Your task to perform on an android device: make emails show in primary in the gmail app Image 0: 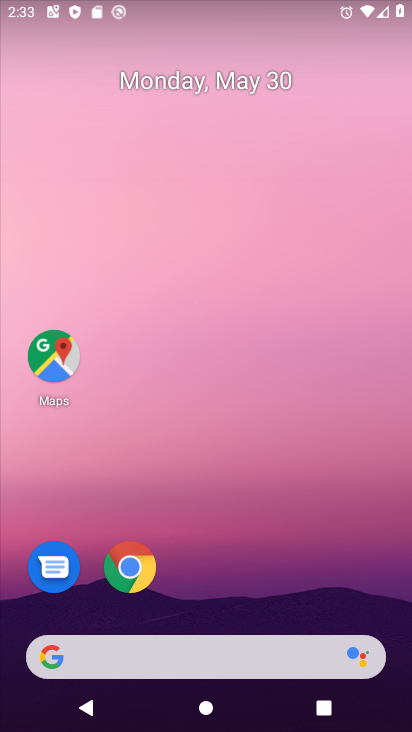
Step 0: drag from (226, 592) to (125, 6)
Your task to perform on an android device: make emails show in primary in the gmail app Image 1: 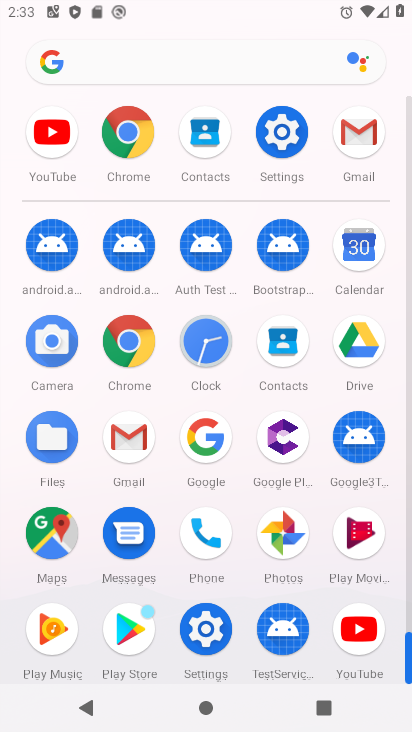
Step 1: click (131, 452)
Your task to perform on an android device: make emails show in primary in the gmail app Image 2: 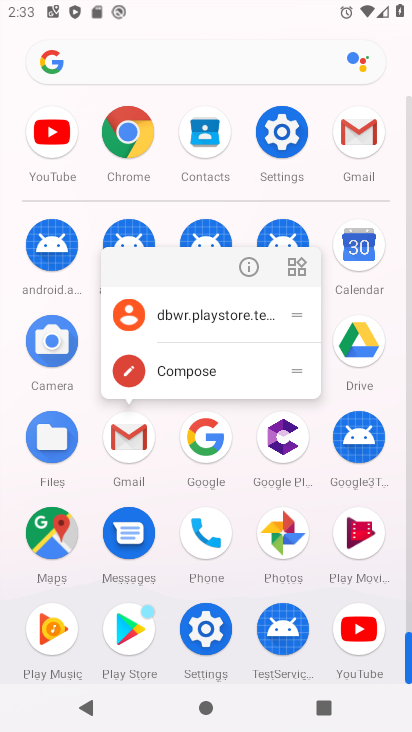
Step 2: click (127, 461)
Your task to perform on an android device: make emails show in primary in the gmail app Image 3: 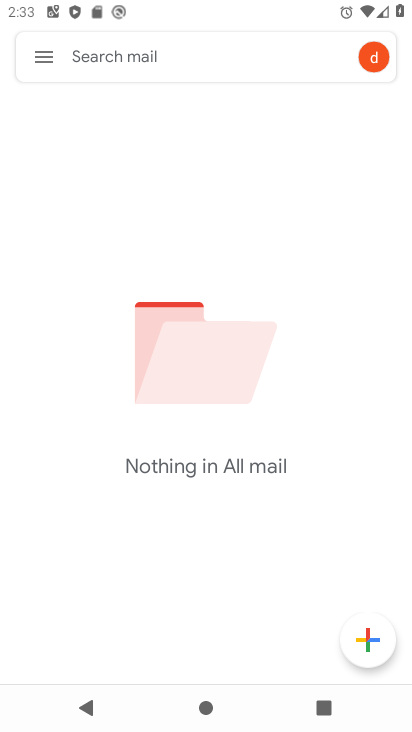
Step 3: click (35, 53)
Your task to perform on an android device: make emails show in primary in the gmail app Image 4: 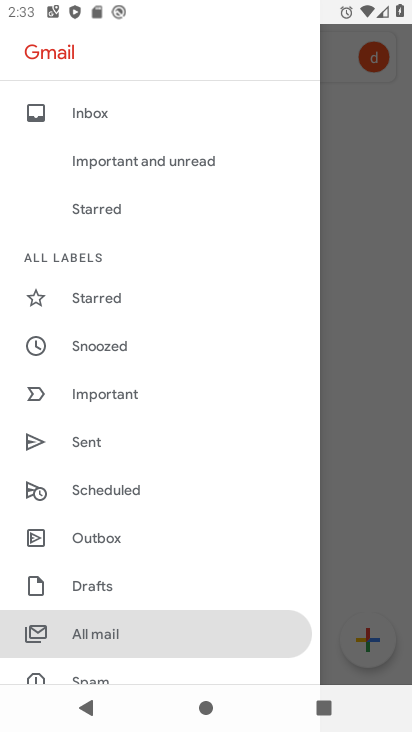
Step 4: drag from (146, 601) to (233, 99)
Your task to perform on an android device: make emails show in primary in the gmail app Image 5: 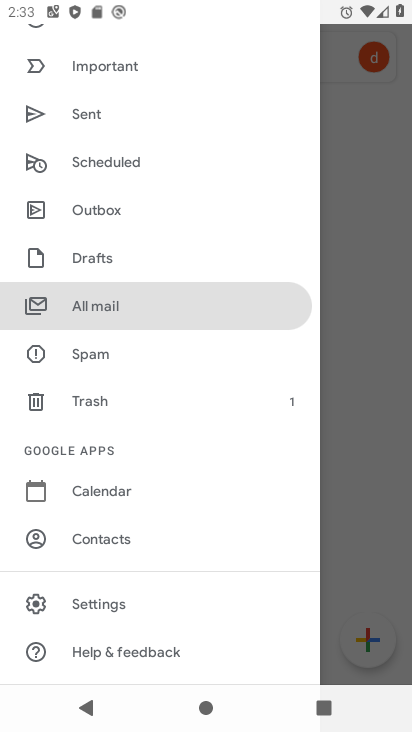
Step 5: click (102, 600)
Your task to perform on an android device: make emails show in primary in the gmail app Image 6: 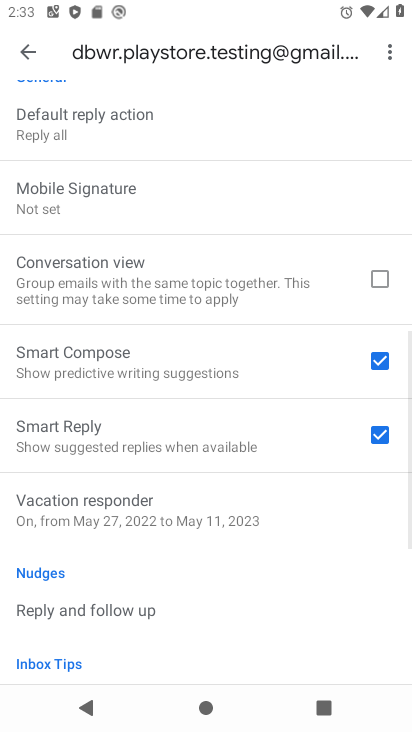
Step 6: drag from (66, 173) to (85, 427)
Your task to perform on an android device: make emails show in primary in the gmail app Image 7: 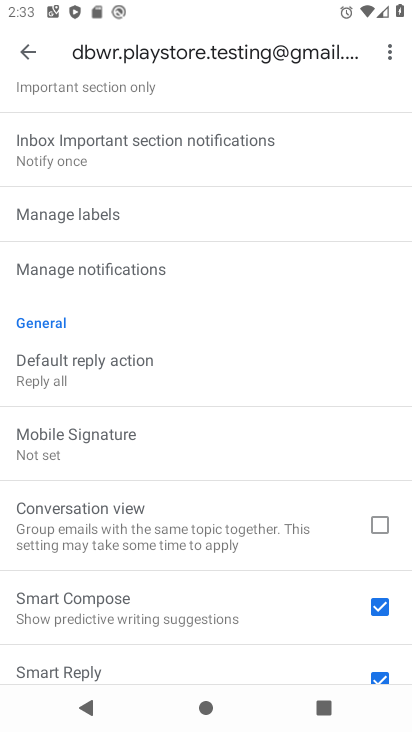
Step 7: drag from (70, 163) to (71, 397)
Your task to perform on an android device: make emails show in primary in the gmail app Image 8: 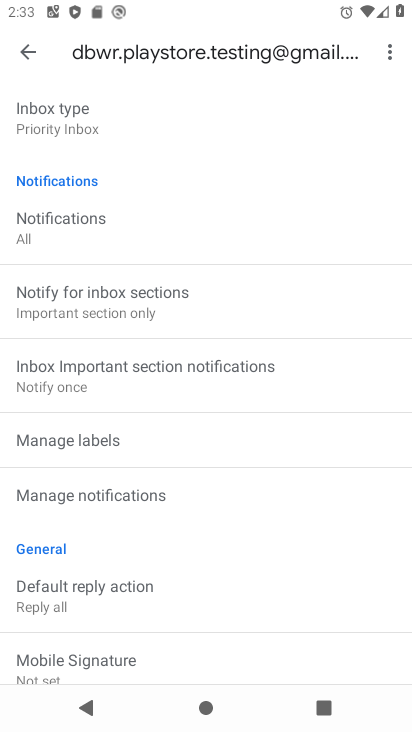
Step 8: drag from (162, 186) to (200, 431)
Your task to perform on an android device: make emails show in primary in the gmail app Image 9: 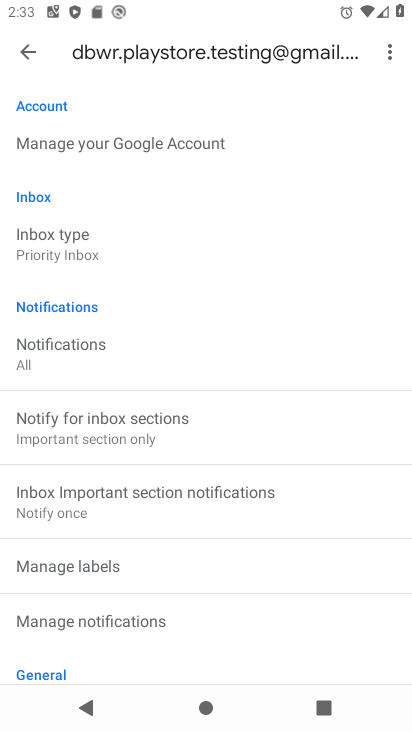
Step 9: click (104, 242)
Your task to perform on an android device: make emails show in primary in the gmail app Image 10: 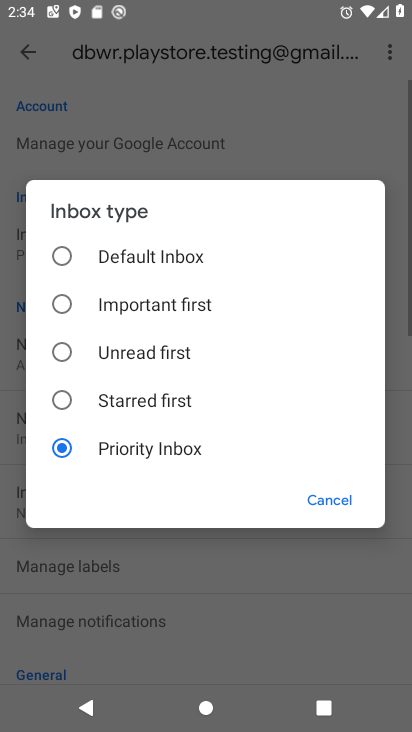
Step 10: click (137, 257)
Your task to perform on an android device: make emails show in primary in the gmail app Image 11: 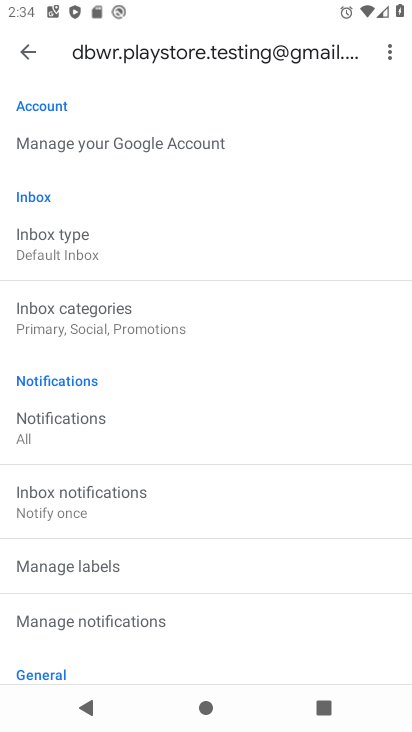
Step 11: click (133, 317)
Your task to perform on an android device: make emails show in primary in the gmail app Image 12: 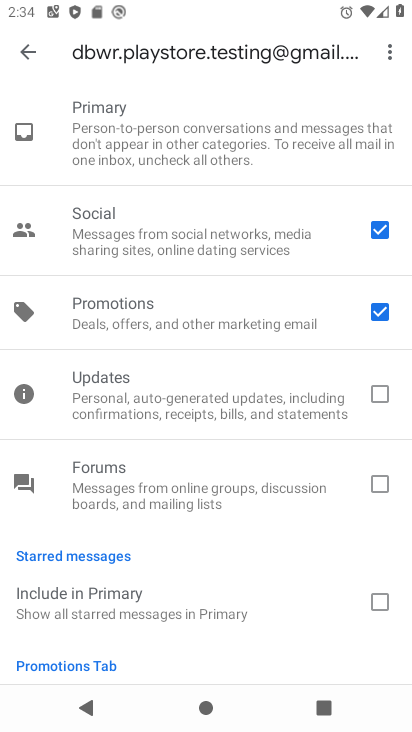
Step 12: click (283, 258)
Your task to perform on an android device: make emails show in primary in the gmail app Image 13: 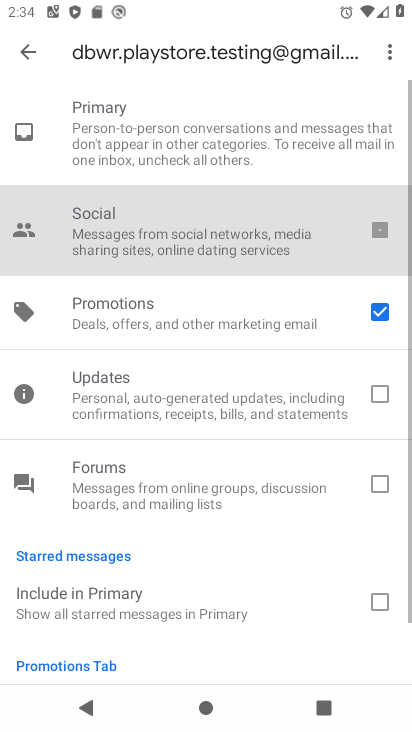
Step 13: click (266, 310)
Your task to perform on an android device: make emails show in primary in the gmail app Image 14: 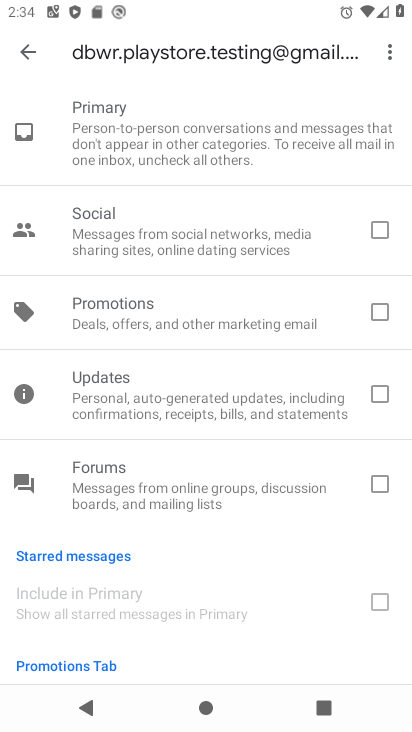
Step 14: task complete